Your task to perform on an android device: toggle pop-ups in chrome Image 0: 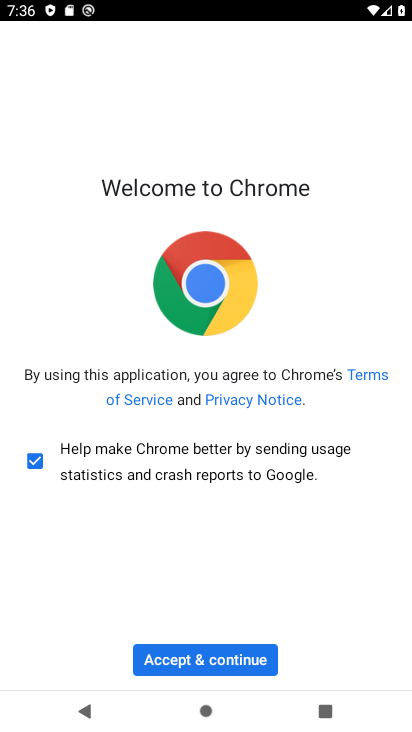
Step 0: click (238, 663)
Your task to perform on an android device: toggle pop-ups in chrome Image 1: 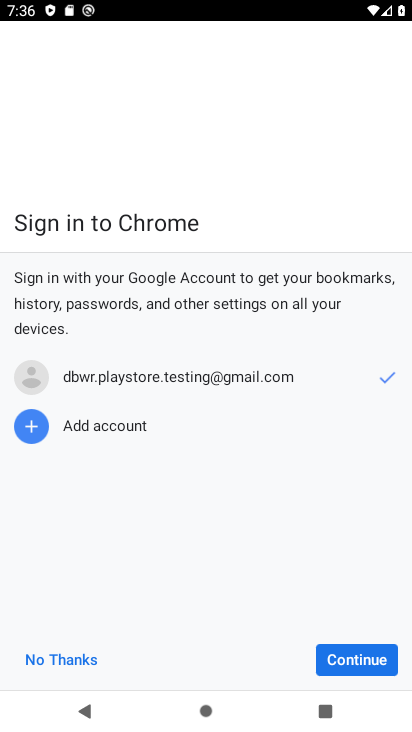
Step 1: click (324, 667)
Your task to perform on an android device: toggle pop-ups in chrome Image 2: 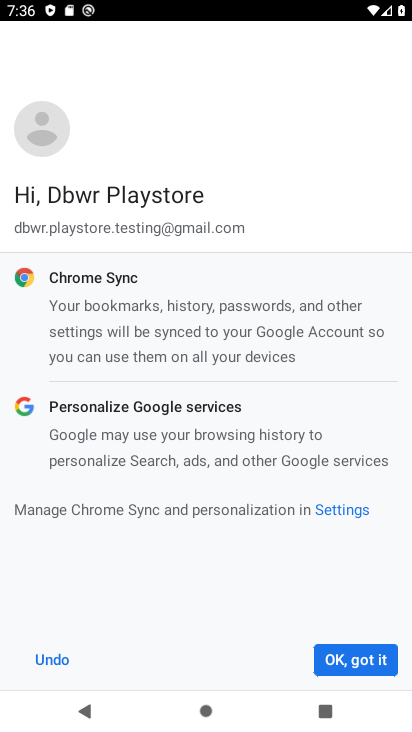
Step 2: click (331, 663)
Your task to perform on an android device: toggle pop-ups in chrome Image 3: 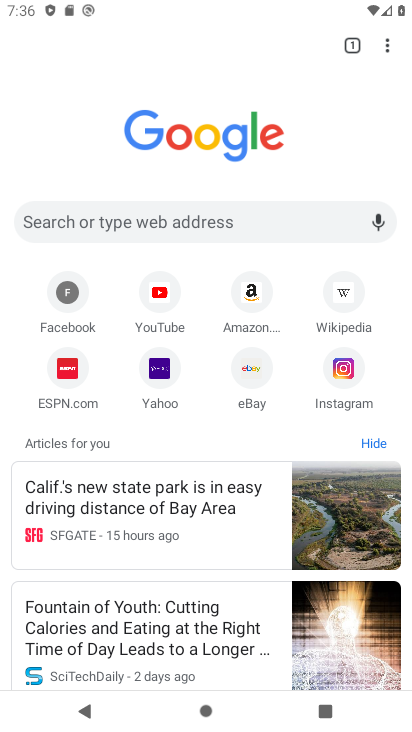
Step 3: click (388, 45)
Your task to perform on an android device: toggle pop-ups in chrome Image 4: 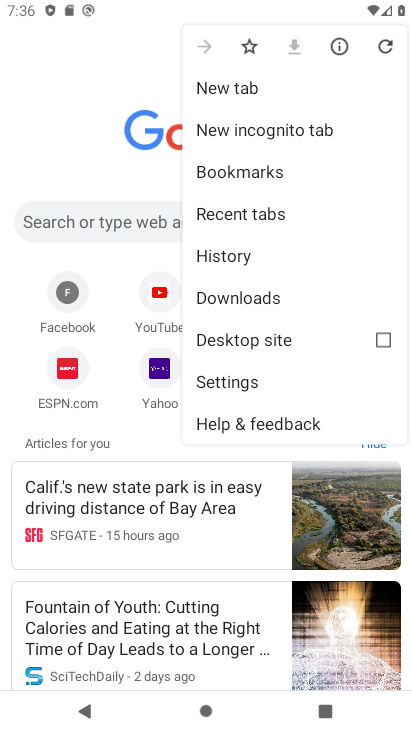
Step 4: click (269, 375)
Your task to perform on an android device: toggle pop-ups in chrome Image 5: 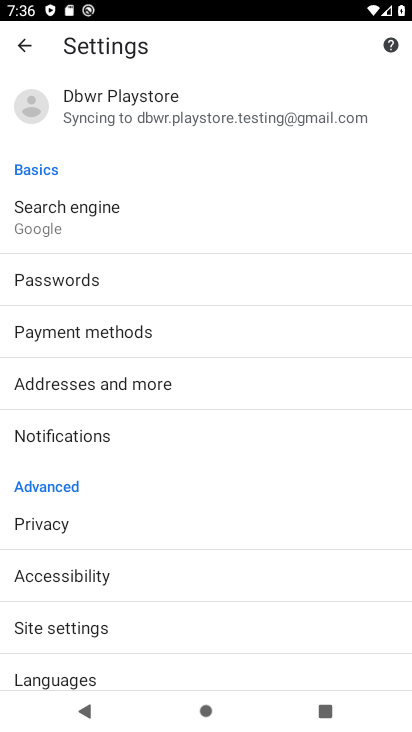
Step 5: drag from (274, 566) to (286, 413)
Your task to perform on an android device: toggle pop-ups in chrome Image 6: 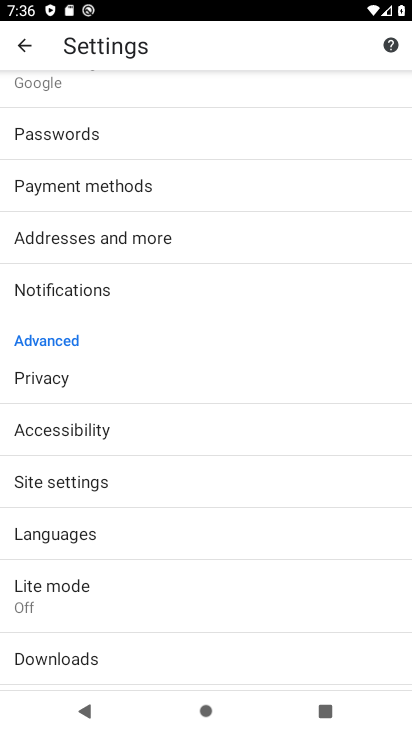
Step 6: drag from (288, 578) to (283, 402)
Your task to perform on an android device: toggle pop-ups in chrome Image 7: 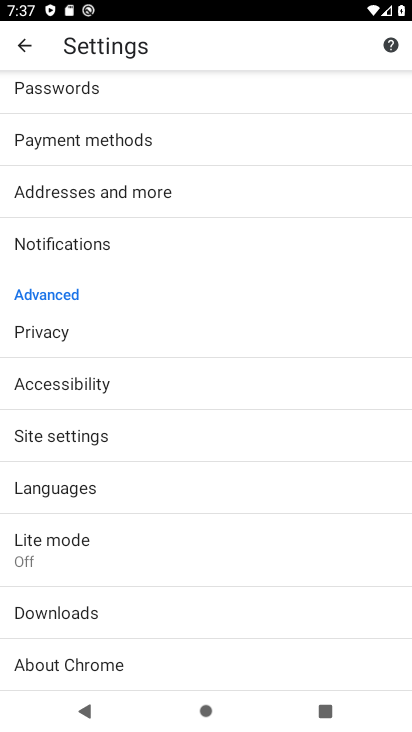
Step 7: drag from (248, 613) to (245, 482)
Your task to perform on an android device: toggle pop-ups in chrome Image 8: 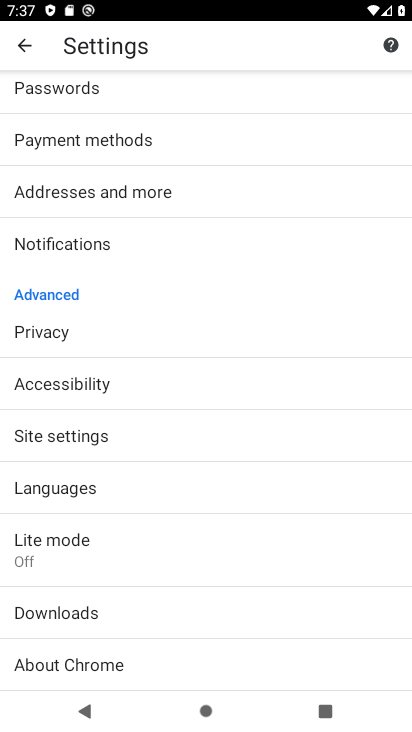
Step 8: drag from (269, 315) to (280, 465)
Your task to perform on an android device: toggle pop-ups in chrome Image 9: 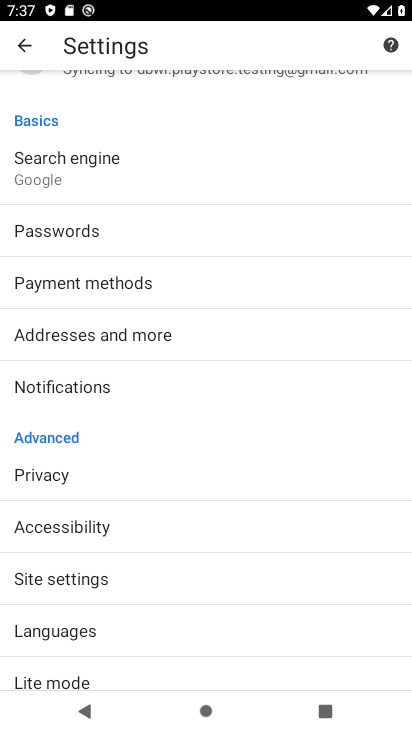
Step 9: drag from (273, 248) to (266, 473)
Your task to perform on an android device: toggle pop-ups in chrome Image 10: 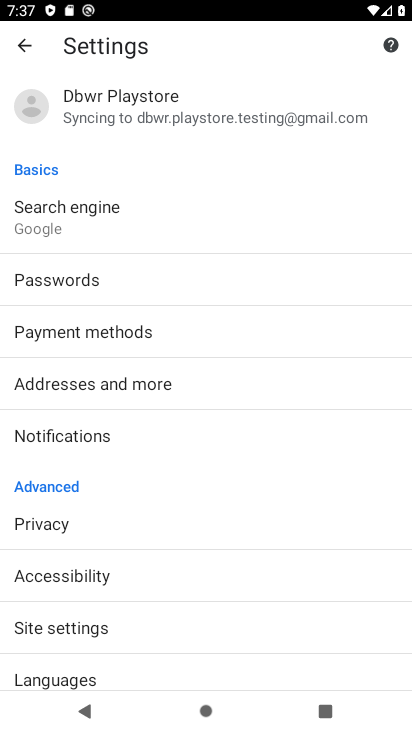
Step 10: drag from (259, 266) to (255, 526)
Your task to perform on an android device: toggle pop-ups in chrome Image 11: 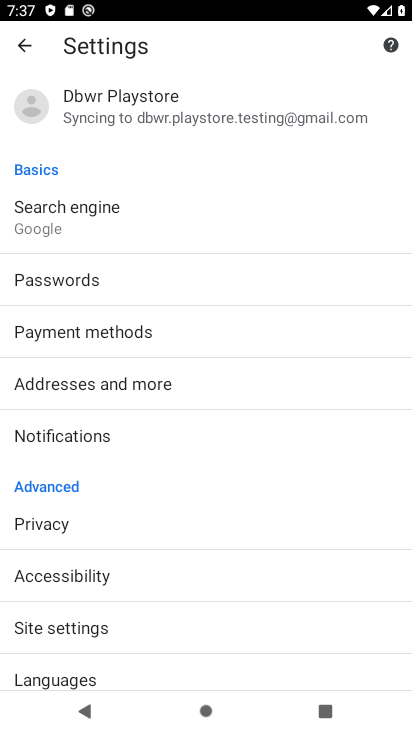
Step 11: drag from (238, 613) to (236, 440)
Your task to perform on an android device: toggle pop-ups in chrome Image 12: 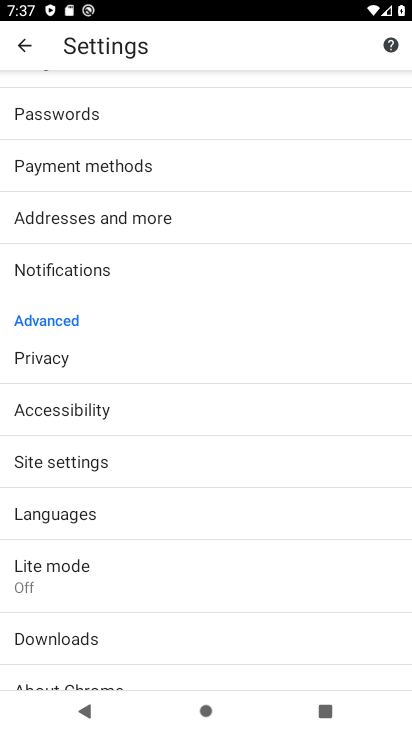
Step 12: drag from (242, 524) to (257, 404)
Your task to perform on an android device: toggle pop-ups in chrome Image 13: 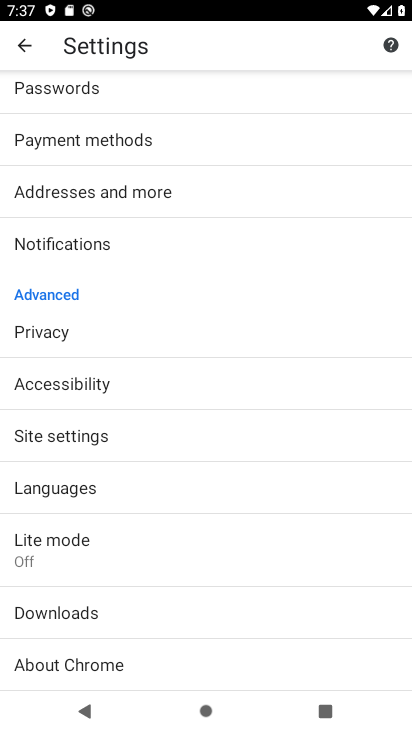
Step 13: click (254, 440)
Your task to perform on an android device: toggle pop-ups in chrome Image 14: 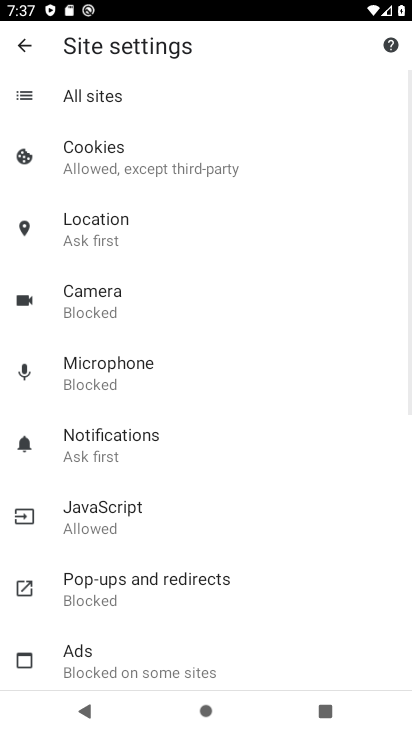
Step 14: drag from (308, 600) to (316, 428)
Your task to perform on an android device: toggle pop-ups in chrome Image 15: 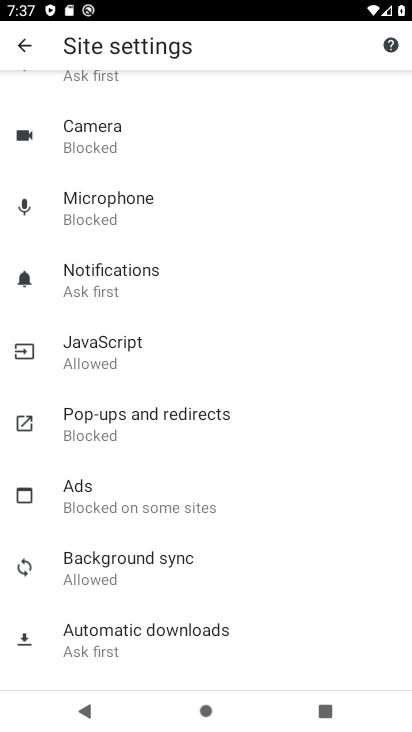
Step 15: drag from (298, 631) to (299, 458)
Your task to perform on an android device: toggle pop-ups in chrome Image 16: 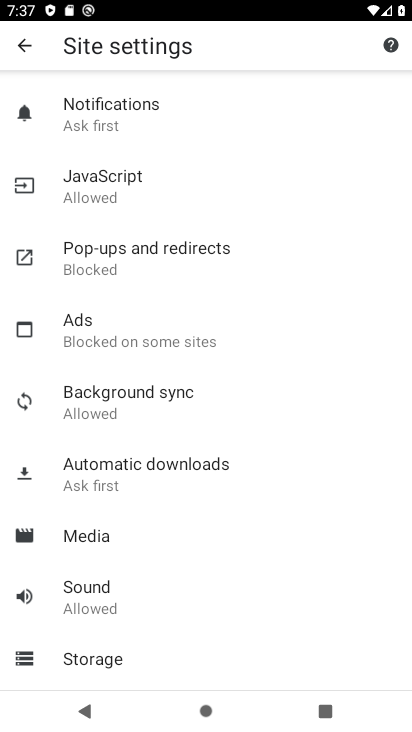
Step 16: drag from (282, 648) to (280, 477)
Your task to perform on an android device: toggle pop-ups in chrome Image 17: 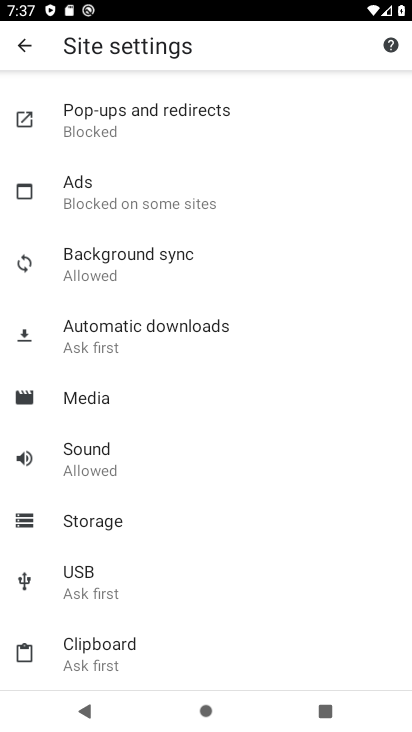
Step 17: drag from (318, 587) to (311, 455)
Your task to perform on an android device: toggle pop-ups in chrome Image 18: 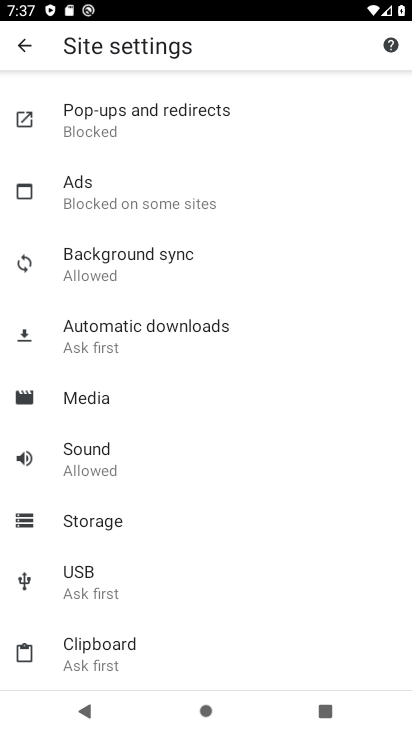
Step 18: drag from (315, 371) to (310, 530)
Your task to perform on an android device: toggle pop-ups in chrome Image 19: 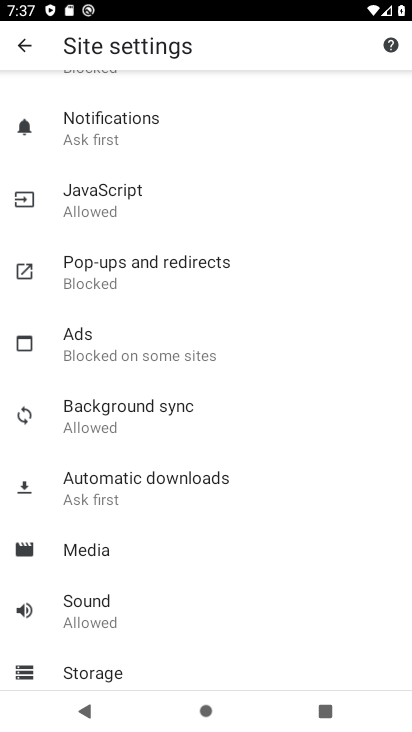
Step 19: drag from (311, 367) to (308, 470)
Your task to perform on an android device: toggle pop-ups in chrome Image 20: 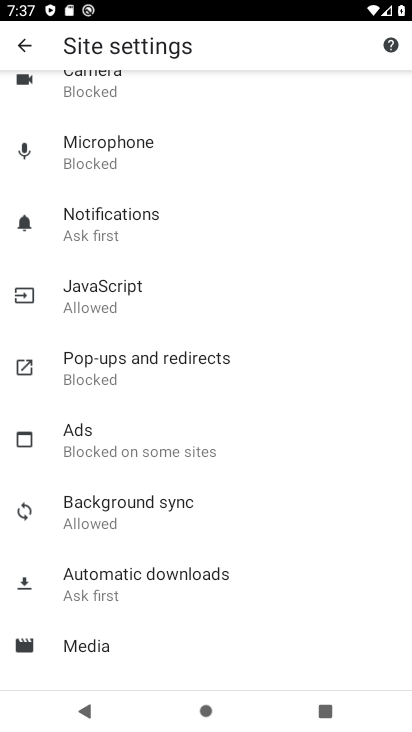
Step 20: drag from (306, 336) to (305, 481)
Your task to perform on an android device: toggle pop-ups in chrome Image 21: 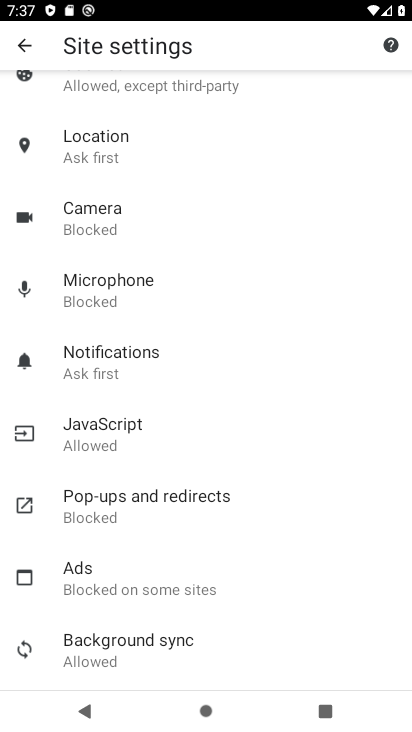
Step 21: click (173, 511)
Your task to perform on an android device: toggle pop-ups in chrome Image 22: 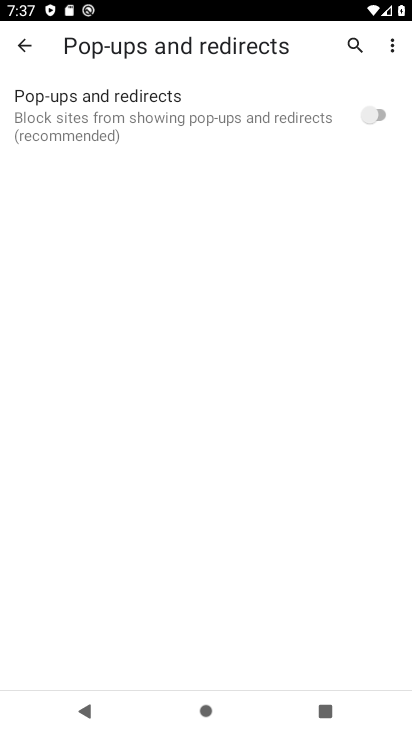
Step 22: click (371, 123)
Your task to perform on an android device: toggle pop-ups in chrome Image 23: 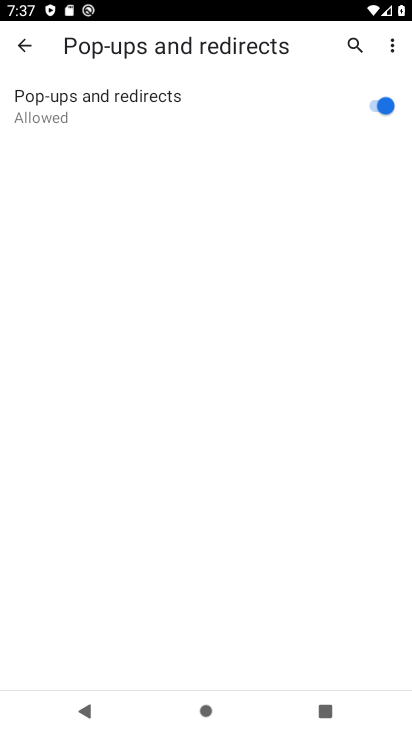
Step 23: task complete